Your task to perform on an android device: change timer sound Image 0: 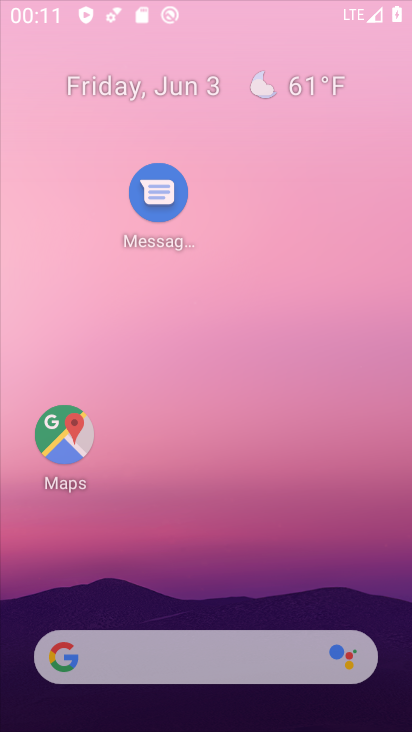
Step 0: drag from (203, 614) to (333, 16)
Your task to perform on an android device: change timer sound Image 1: 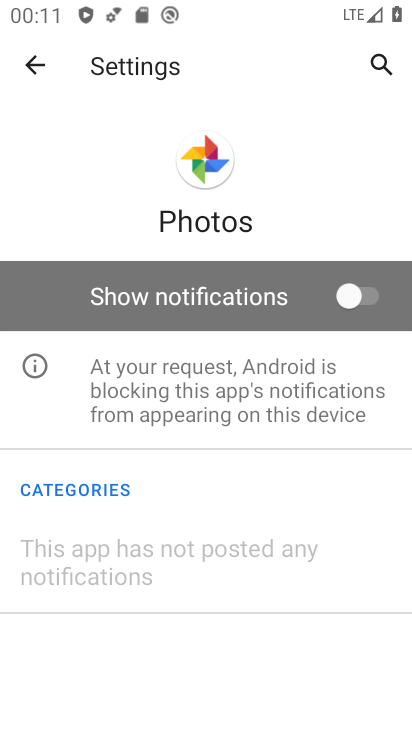
Step 1: press home button
Your task to perform on an android device: change timer sound Image 2: 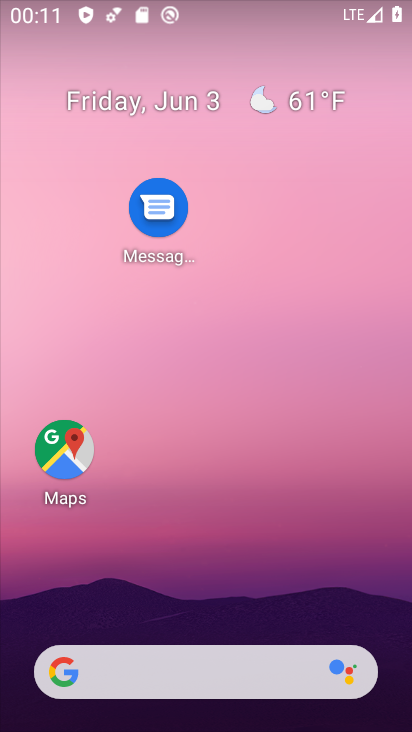
Step 2: drag from (192, 634) to (102, 35)
Your task to perform on an android device: change timer sound Image 3: 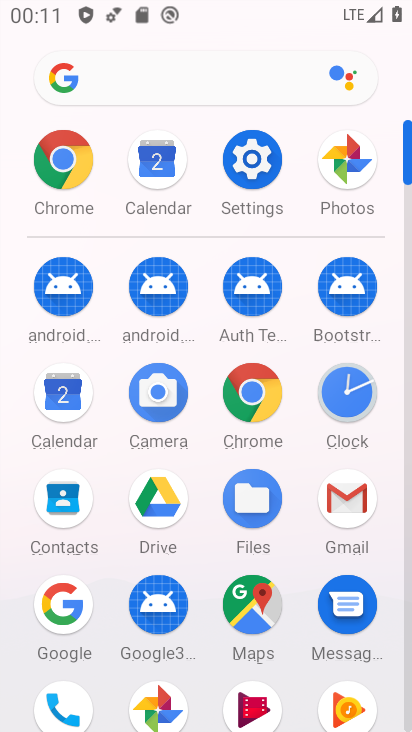
Step 3: click (347, 394)
Your task to perform on an android device: change timer sound Image 4: 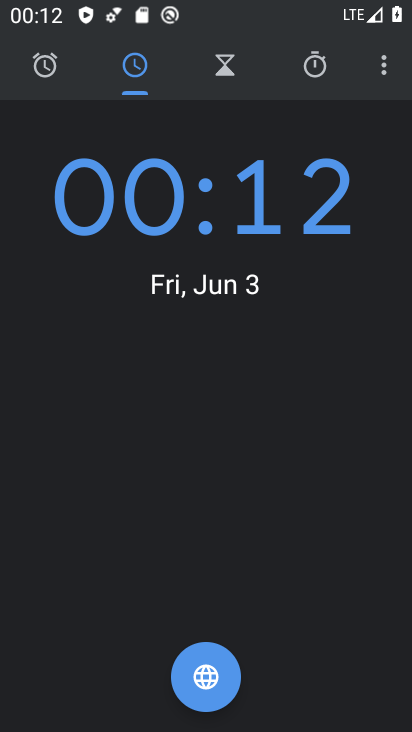
Step 4: click (369, 73)
Your task to perform on an android device: change timer sound Image 5: 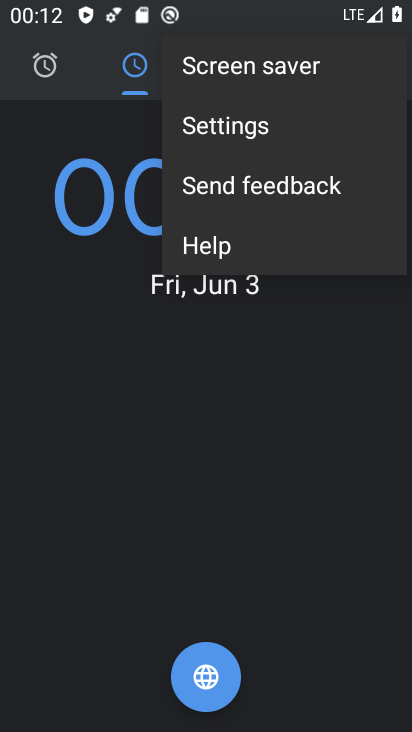
Step 5: click (227, 121)
Your task to perform on an android device: change timer sound Image 6: 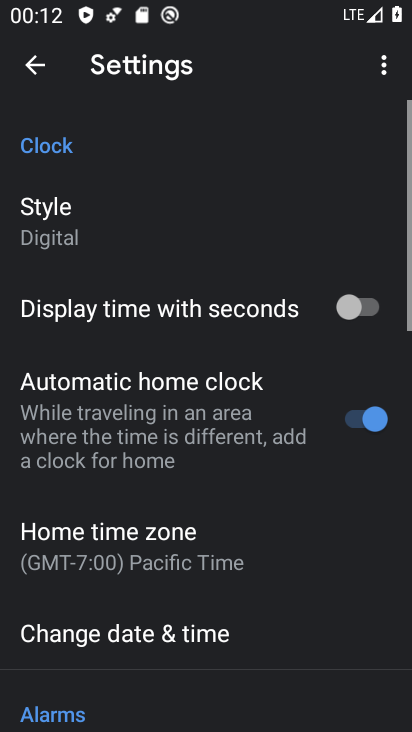
Step 6: drag from (262, 658) to (223, 111)
Your task to perform on an android device: change timer sound Image 7: 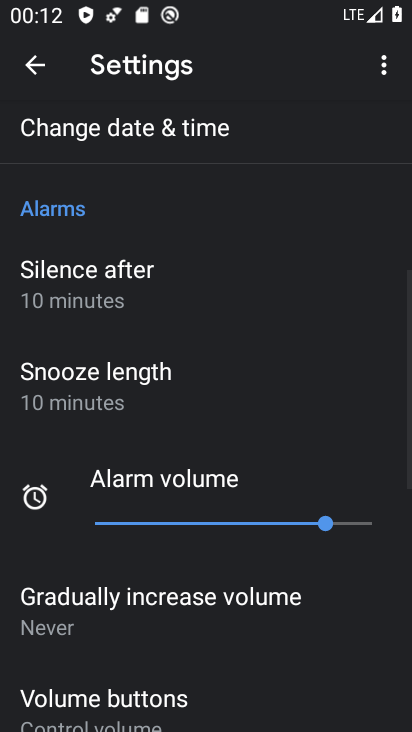
Step 7: drag from (144, 618) to (111, 210)
Your task to perform on an android device: change timer sound Image 8: 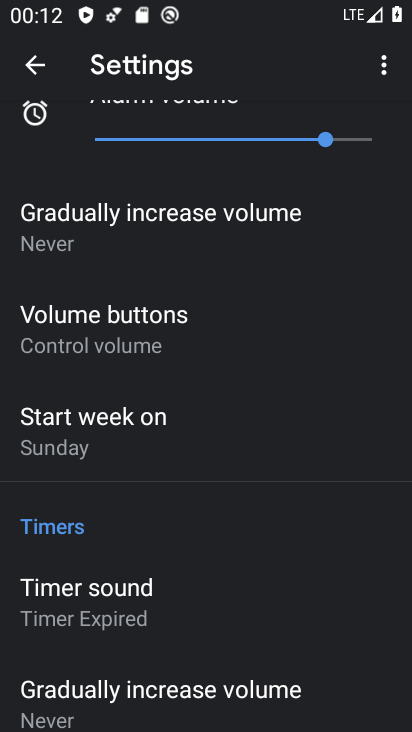
Step 8: click (102, 573)
Your task to perform on an android device: change timer sound Image 9: 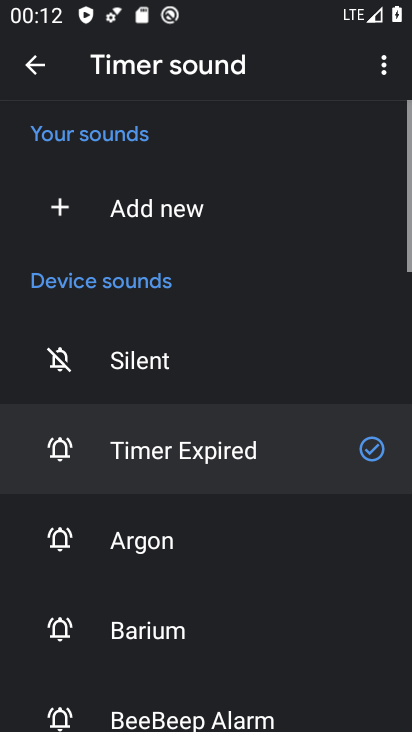
Step 9: click (139, 557)
Your task to perform on an android device: change timer sound Image 10: 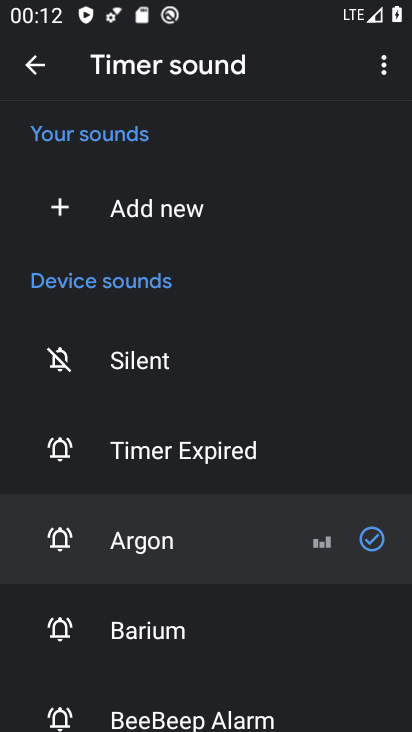
Step 10: task complete